Your task to perform on an android device: move a message to another label in the gmail app Image 0: 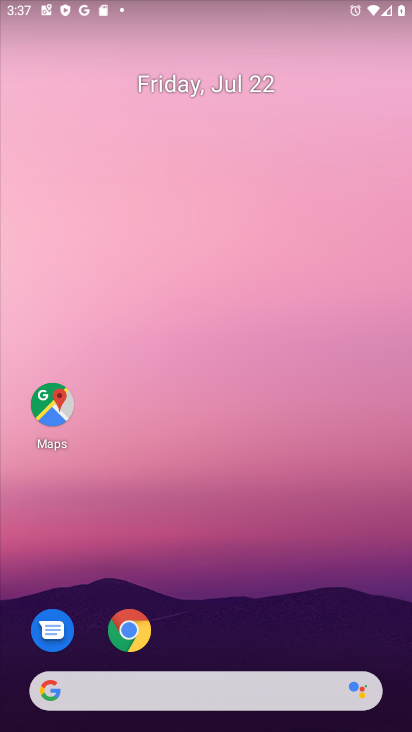
Step 0: drag from (199, 675) to (175, 114)
Your task to perform on an android device: move a message to another label in the gmail app Image 1: 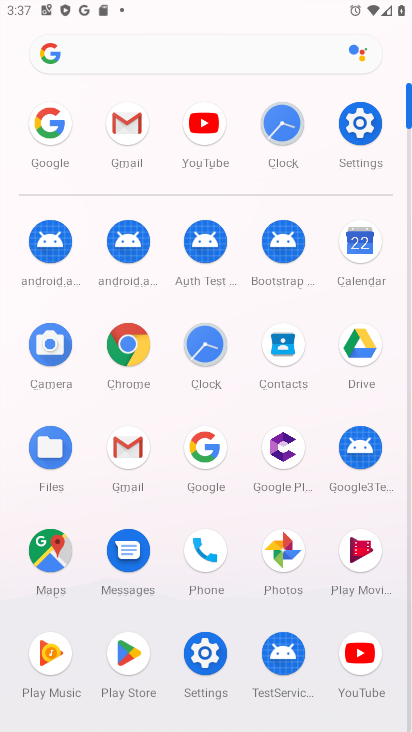
Step 1: click (147, 452)
Your task to perform on an android device: move a message to another label in the gmail app Image 2: 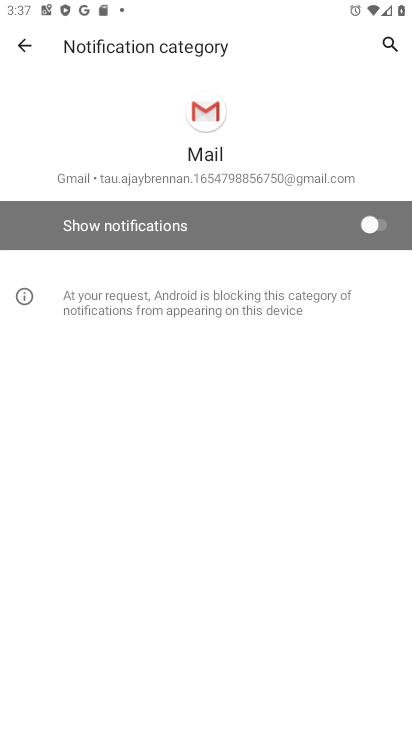
Step 2: click (22, 44)
Your task to perform on an android device: move a message to another label in the gmail app Image 3: 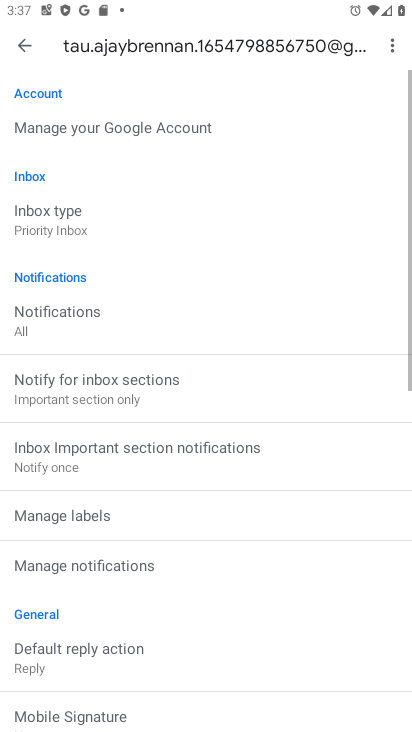
Step 3: click (22, 44)
Your task to perform on an android device: move a message to another label in the gmail app Image 4: 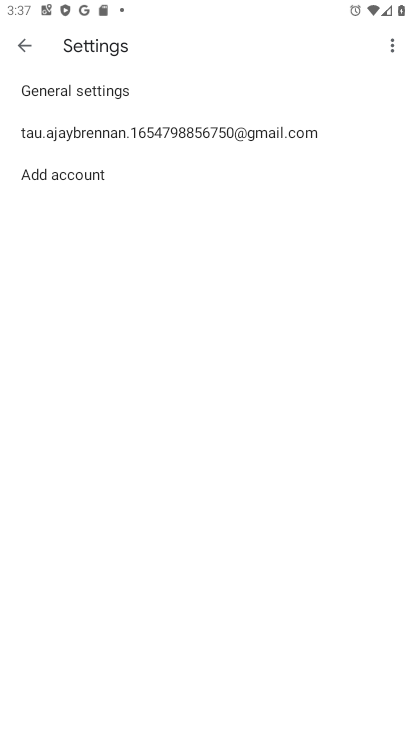
Step 4: click (22, 44)
Your task to perform on an android device: move a message to another label in the gmail app Image 5: 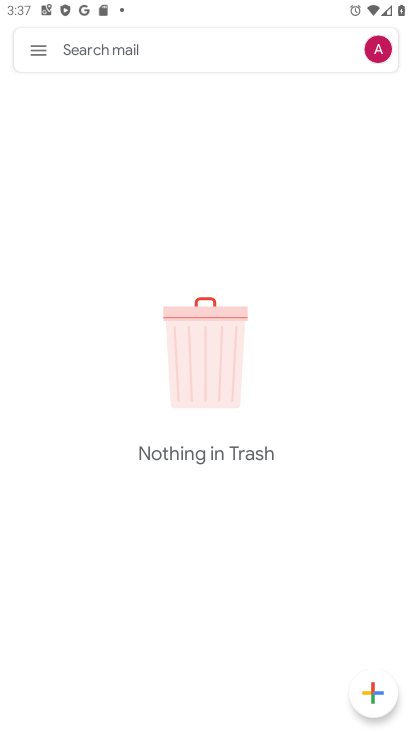
Step 5: click (34, 45)
Your task to perform on an android device: move a message to another label in the gmail app Image 6: 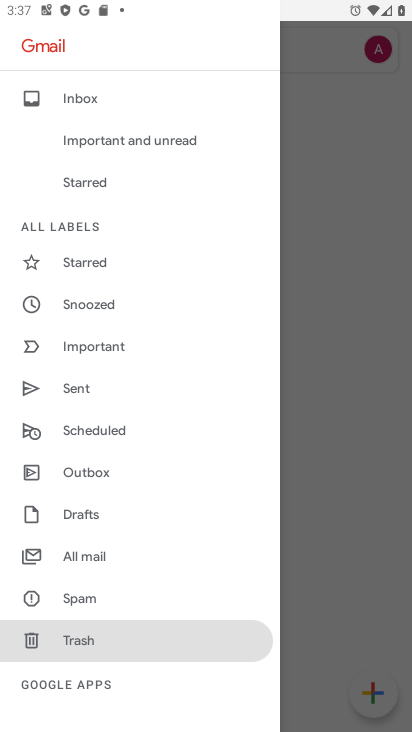
Step 6: click (122, 554)
Your task to perform on an android device: move a message to another label in the gmail app Image 7: 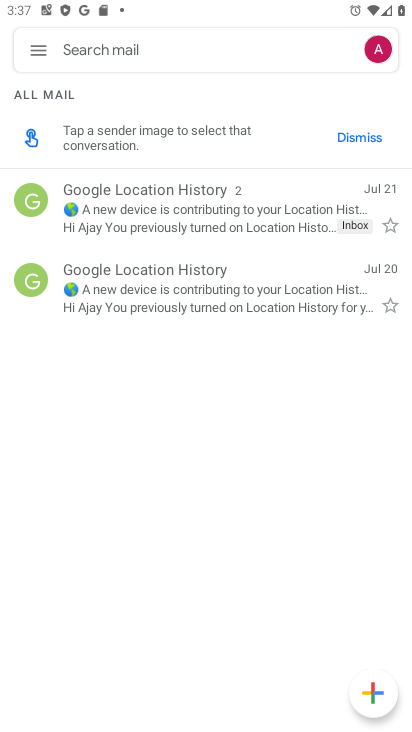
Step 7: click (37, 207)
Your task to perform on an android device: move a message to another label in the gmail app Image 8: 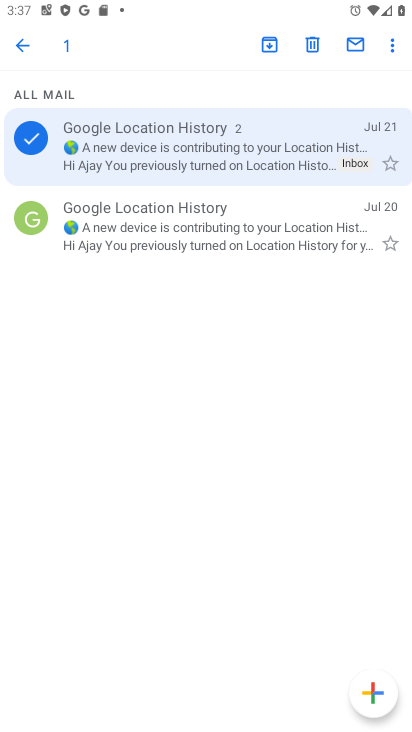
Step 8: click (395, 58)
Your task to perform on an android device: move a message to another label in the gmail app Image 9: 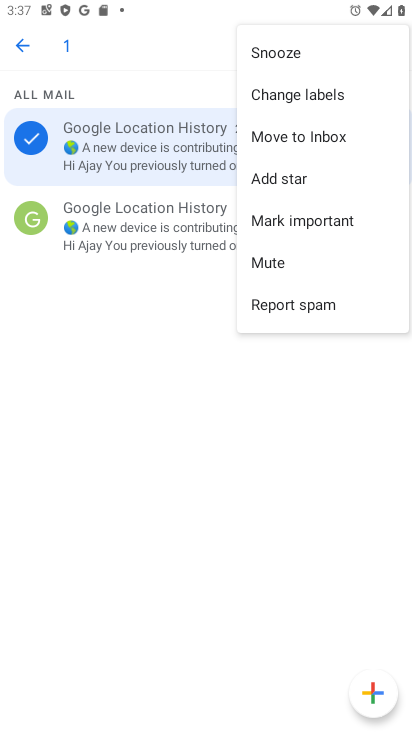
Step 9: click (280, 106)
Your task to perform on an android device: move a message to another label in the gmail app Image 10: 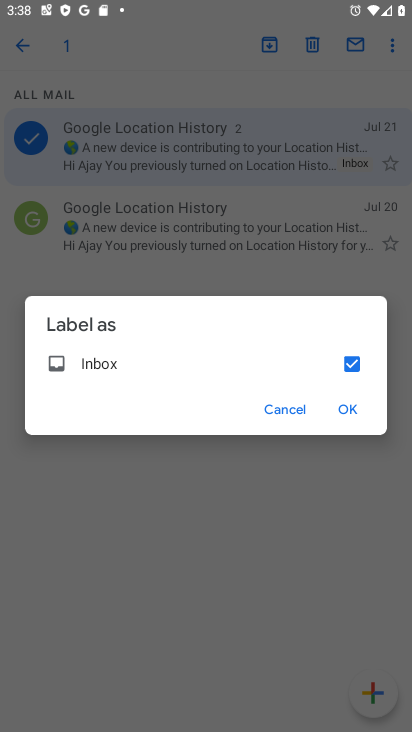
Step 10: click (341, 363)
Your task to perform on an android device: move a message to another label in the gmail app Image 11: 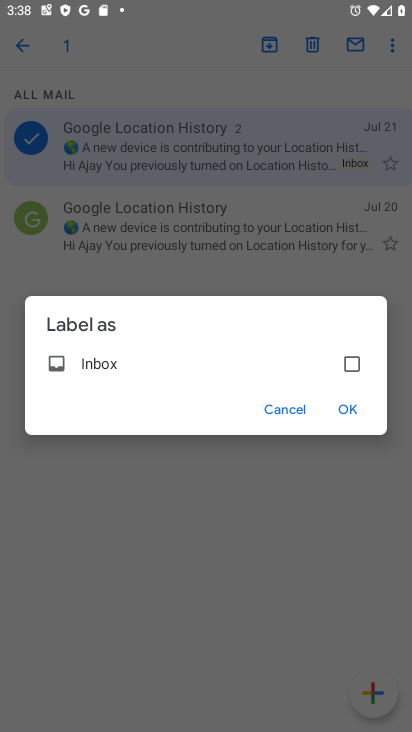
Step 11: click (354, 404)
Your task to perform on an android device: move a message to another label in the gmail app Image 12: 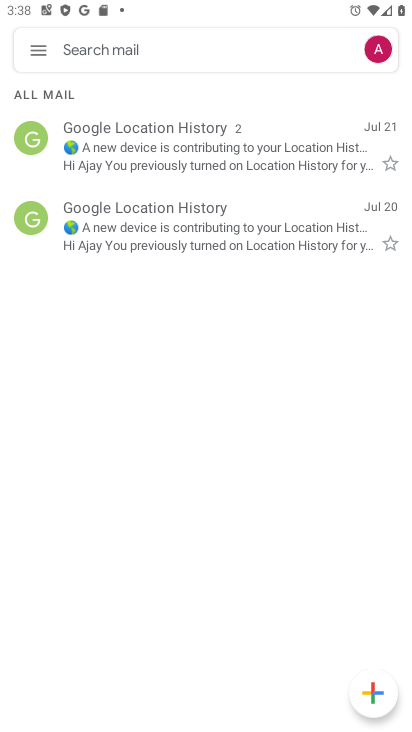
Step 12: task complete